Your task to perform on an android device: Open the stopwatch Image 0: 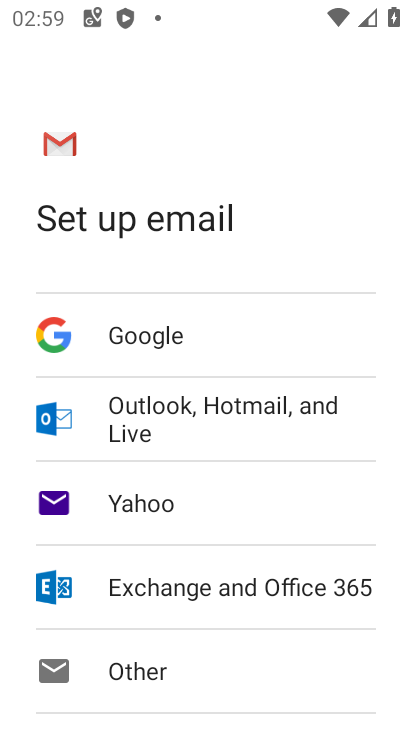
Step 0: press home button
Your task to perform on an android device: Open the stopwatch Image 1: 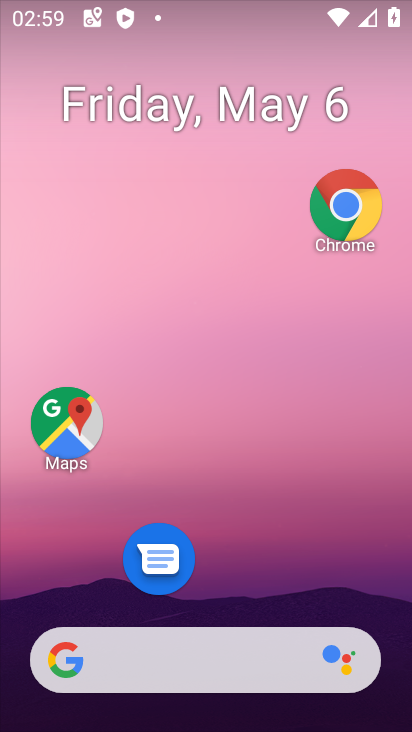
Step 1: drag from (194, 675) to (292, 115)
Your task to perform on an android device: Open the stopwatch Image 2: 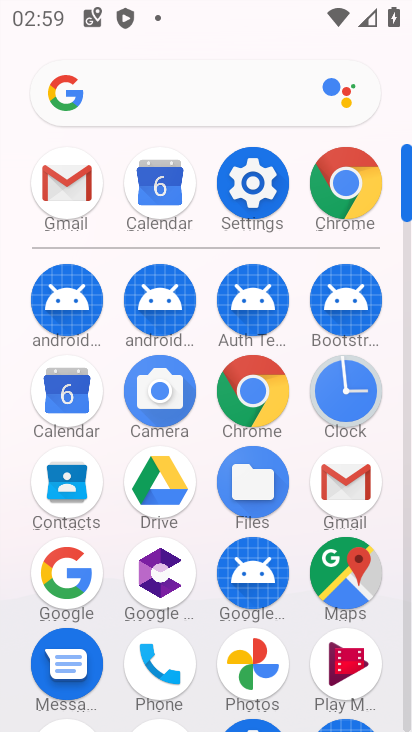
Step 2: click (349, 403)
Your task to perform on an android device: Open the stopwatch Image 3: 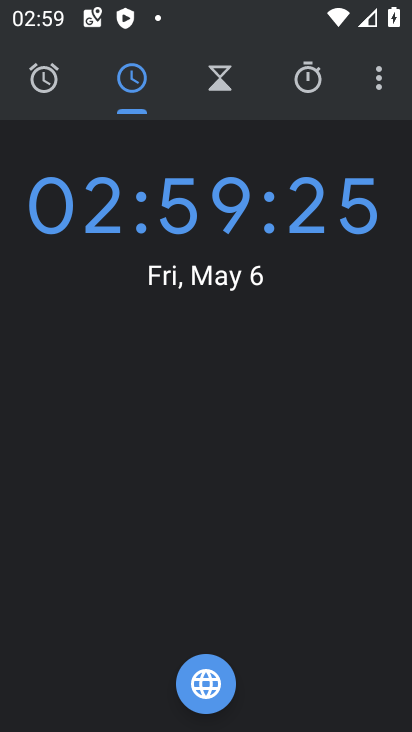
Step 3: click (306, 81)
Your task to perform on an android device: Open the stopwatch Image 4: 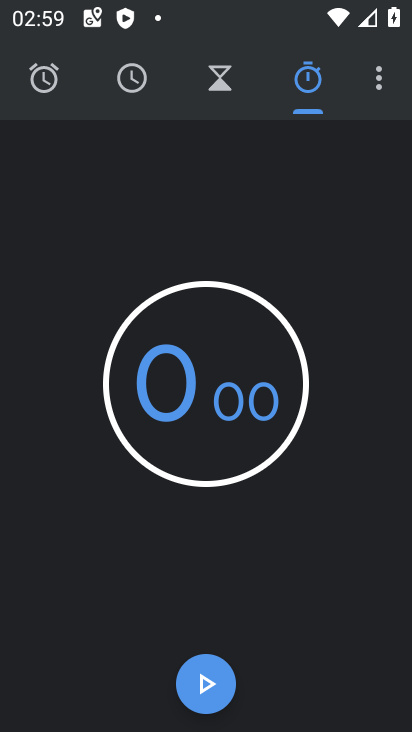
Step 4: task complete